Your task to perform on an android device: find which apps use the phone's location Image 0: 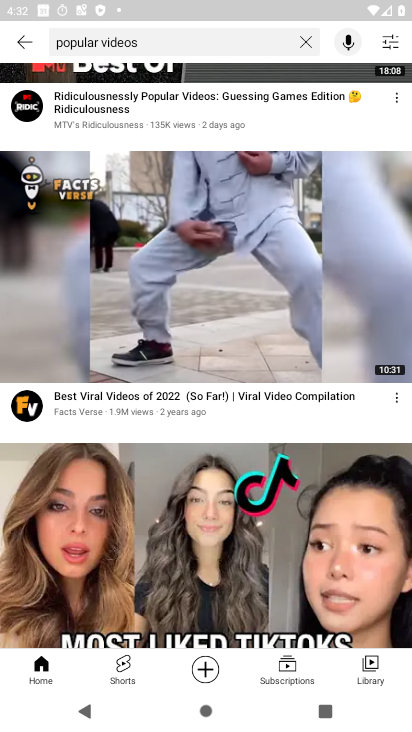
Step 0: press home button
Your task to perform on an android device: find which apps use the phone's location Image 1: 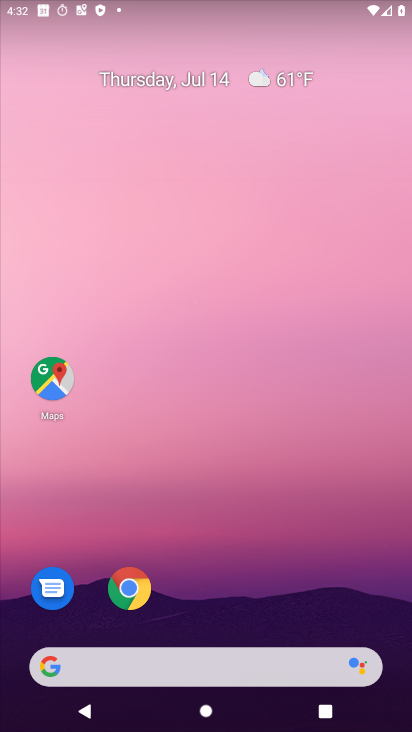
Step 1: drag from (264, 665) to (287, 170)
Your task to perform on an android device: find which apps use the phone's location Image 2: 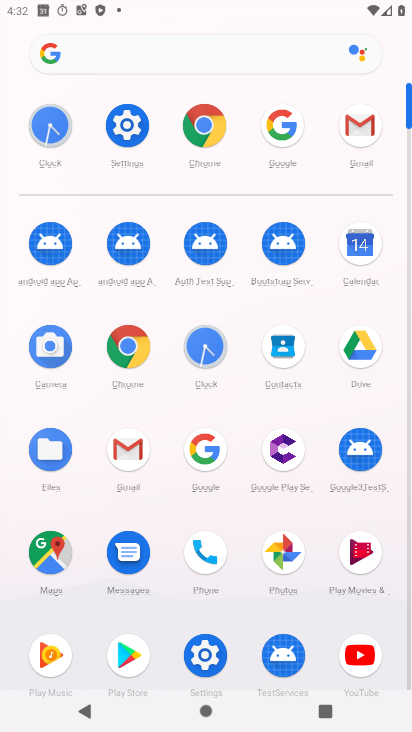
Step 2: click (205, 654)
Your task to perform on an android device: find which apps use the phone's location Image 3: 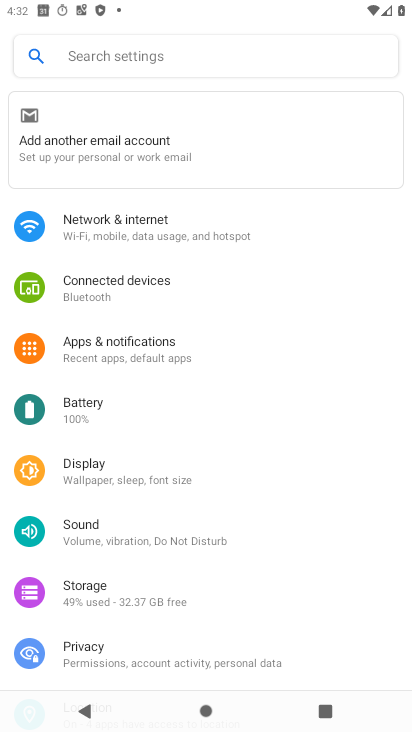
Step 3: drag from (114, 617) to (168, 495)
Your task to perform on an android device: find which apps use the phone's location Image 4: 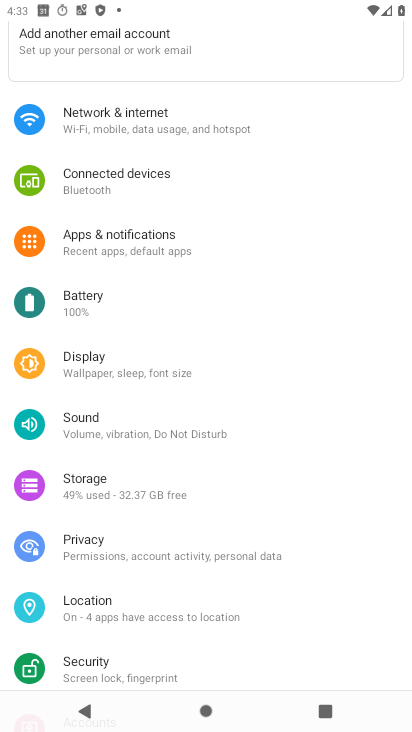
Step 4: click (96, 598)
Your task to perform on an android device: find which apps use the phone's location Image 5: 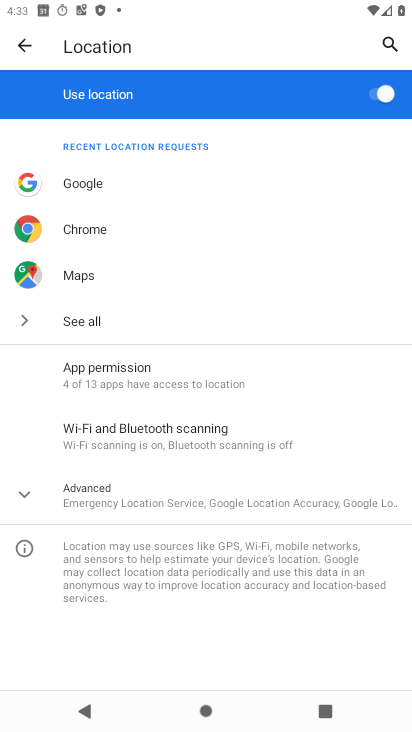
Step 5: click (123, 364)
Your task to perform on an android device: find which apps use the phone's location Image 6: 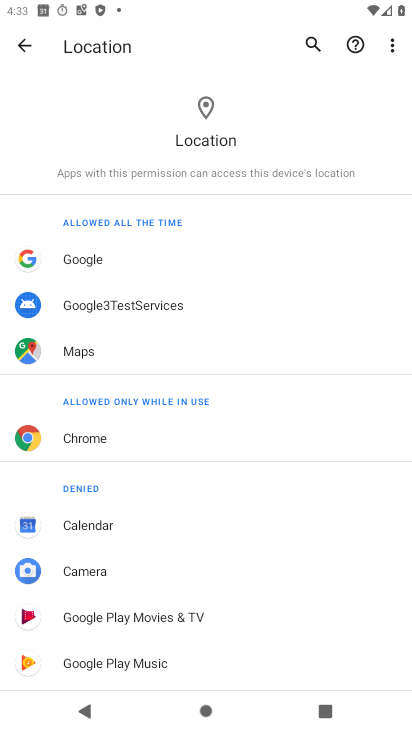
Step 6: click (86, 358)
Your task to perform on an android device: find which apps use the phone's location Image 7: 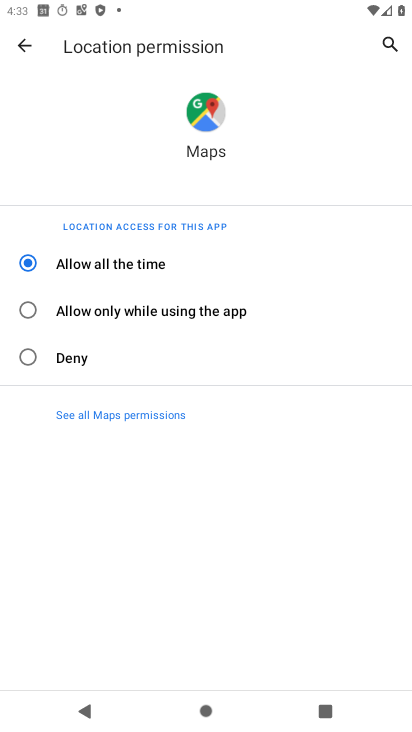
Step 7: task complete